Your task to perform on an android device: Open accessibility settings Image 0: 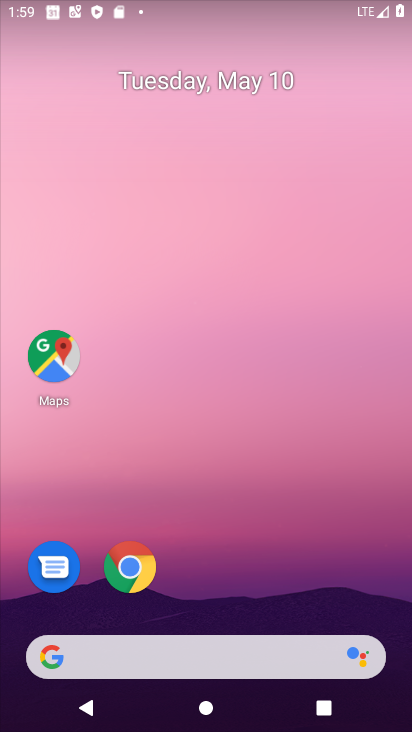
Step 0: drag from (386, 622) to (193, 73)
Your task to perform on an android device: Open accessibility settings Image 1: 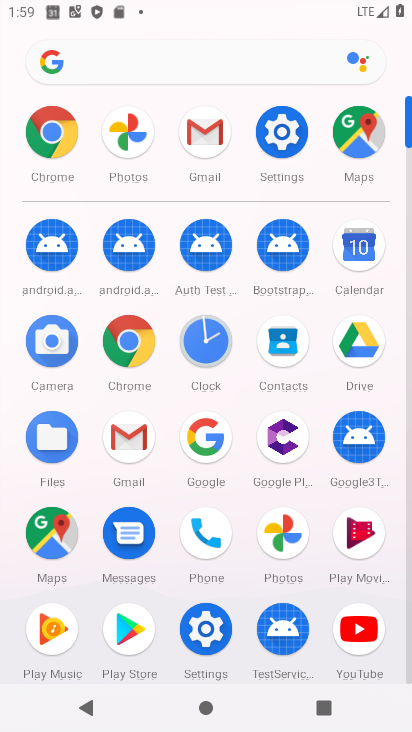
Step 1: click (219, 640)
Your task to perform on an android device: Open accessibility settings Image 2: 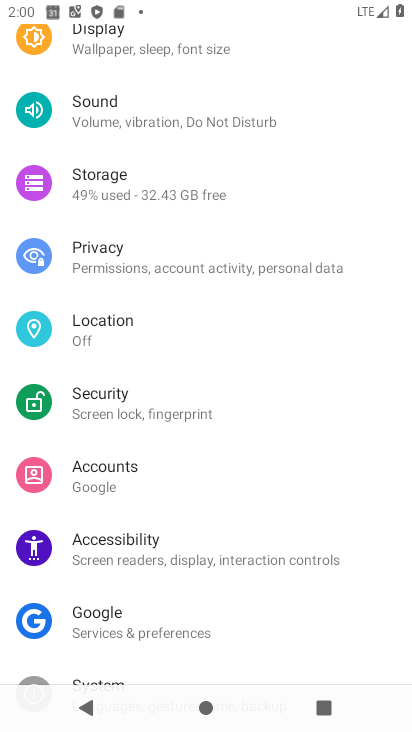
Step 2: click (182, 561)
Your task to perform on an android device: Open accessibility settings Image 3: 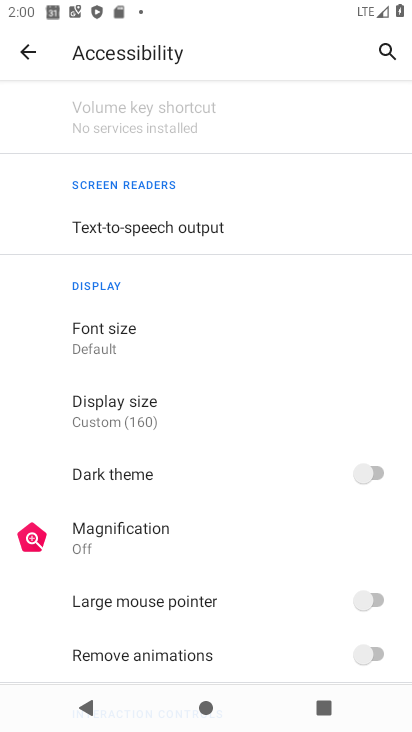
Step 3: task complete